Your task to perform on an android device: Toggle the flashlight Image 0: 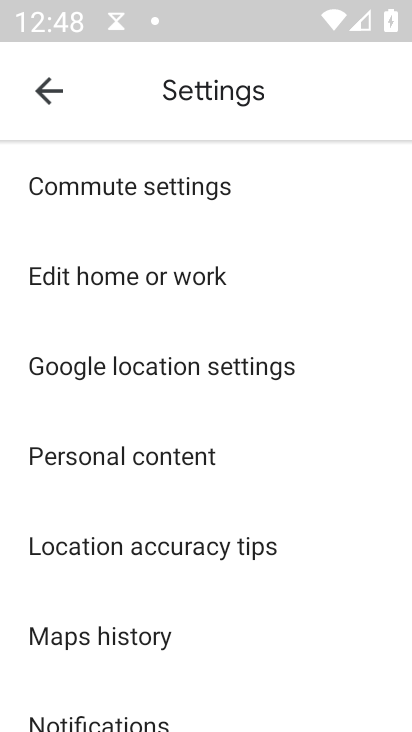
Step 0: drag from (281, 451) to (291, 162)
Your task to perform on an android device: Toggle the flashlight Image 1: 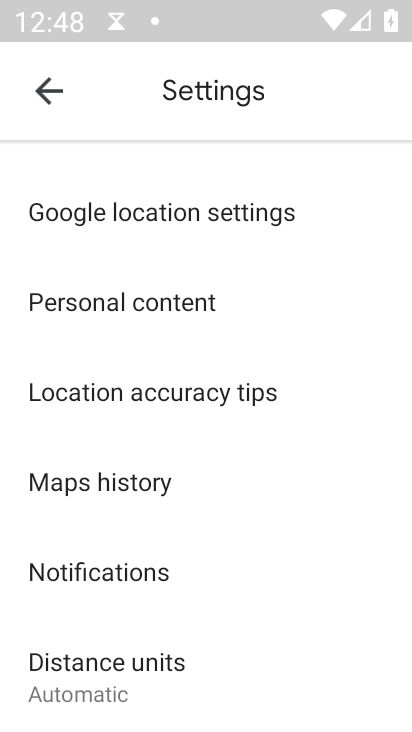
Step 1: task complete